Your task to perform on an android device: turn off notifications in google photos Image 0: 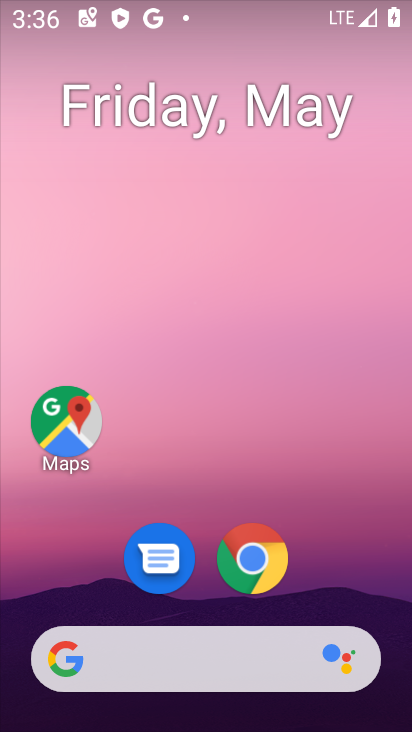
Step 0: press home button
Your task to perform on an android device: turn off notifications in google photos Image 1: 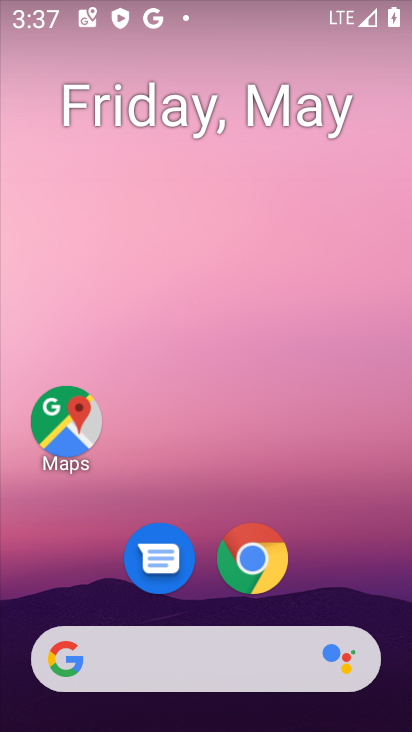
Step 1: drag from (238, 621) to (388, 76)
Your task to perform on an android device: turn off notifications in google photos Image 2: 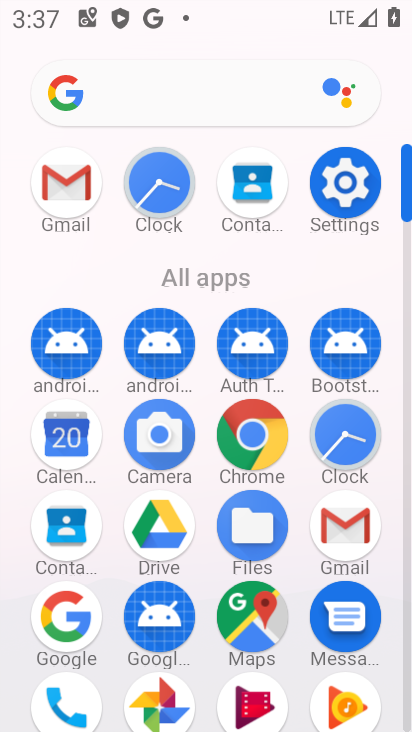
Step 2: drag from (192, 605) to (311, 254)
Your task to perform on an android device: turn off notifications in google photos Image 3: 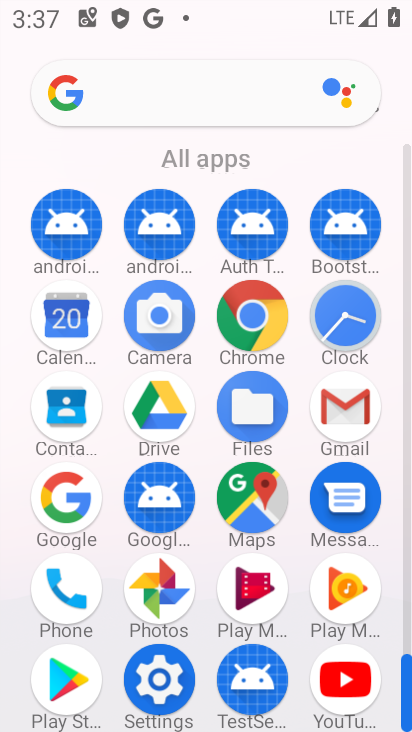
Step 3: click (163, 576)
Your task to perform on an android device: turn off notifications in google photos Image 4: 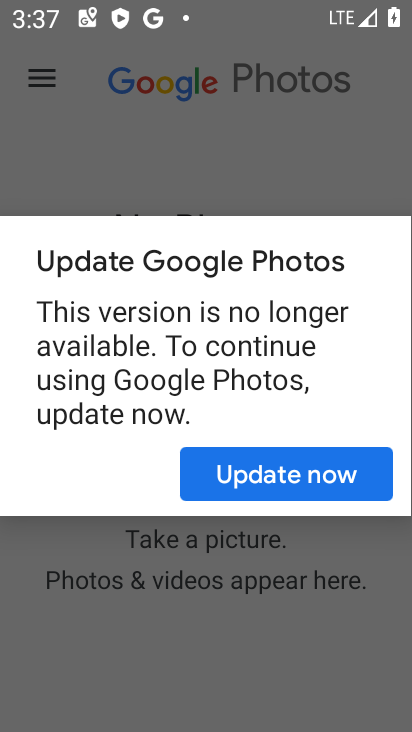
Step 4: click (332, 470)
Your task to perform on an android device: turn off notifications in google photos Image 5: 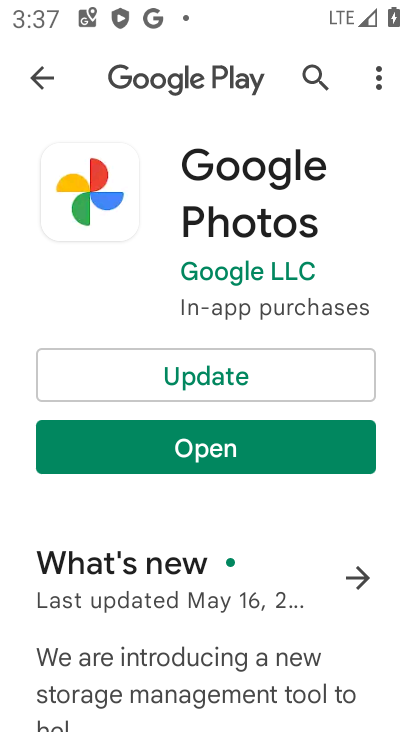
Step 5: click (249, 386)
Your task to perform on an android device: turn off notifications in google photos Image 6: 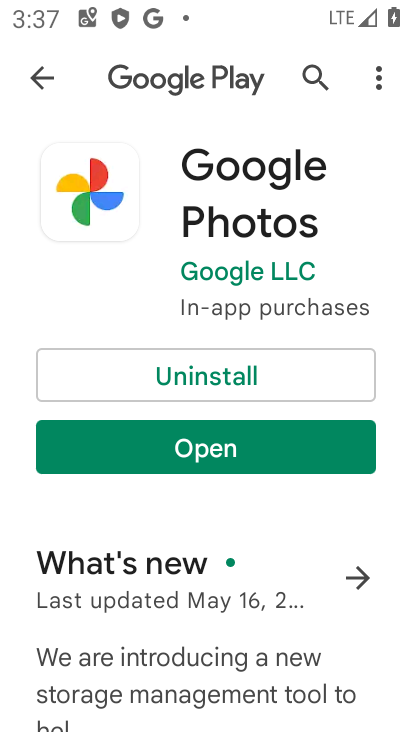
Step 6: click (234, 456)
Your task to perform on an android device: turn off notifications in google photos Image 7: 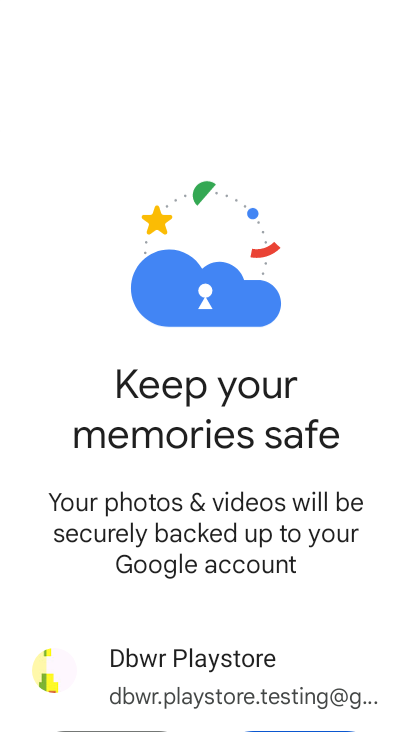
Step 7: drag from (237, 636) to (336, 162)
Your task to perform on an android device: turn off notifications in google photos Image 8: 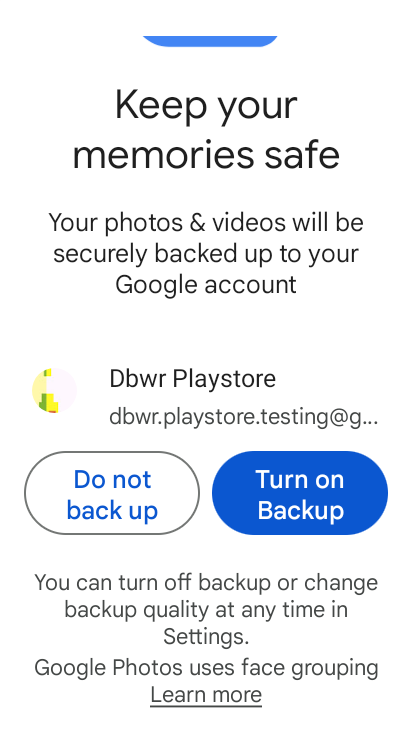
Step 8: click (296, 503)
Your task to perform on an android device: turn off notifications in google photos Image 9: 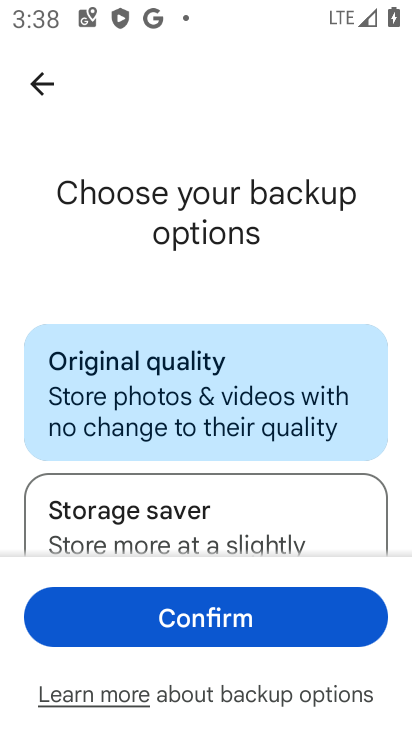
Step 9: click (232, 617)
Your task to perform on an android device: turn off notifications in google photos Image 10: 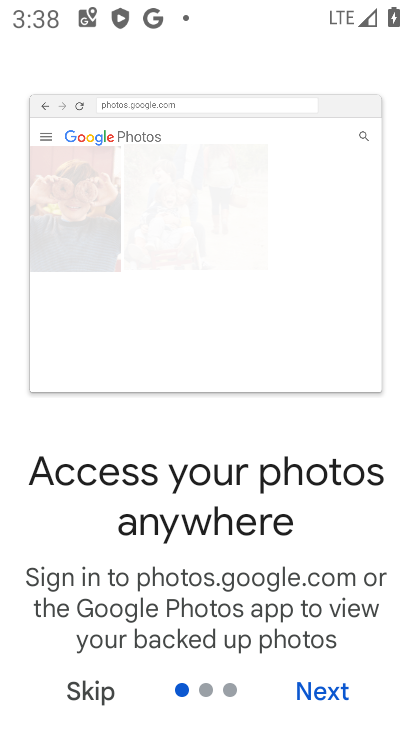
Step 10: click (304, 695)
Your task to perform on an android device: turn off notifications in google photos Image 11: 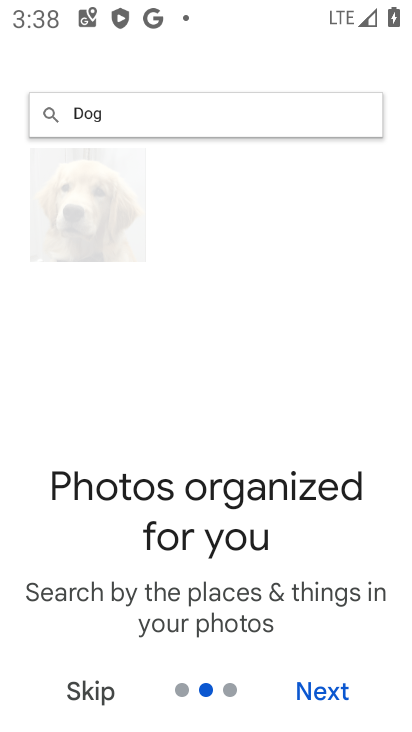
Step 11: click (304, 696)
Your task to perform on an android device: turn off notifications in google photos Image 12: 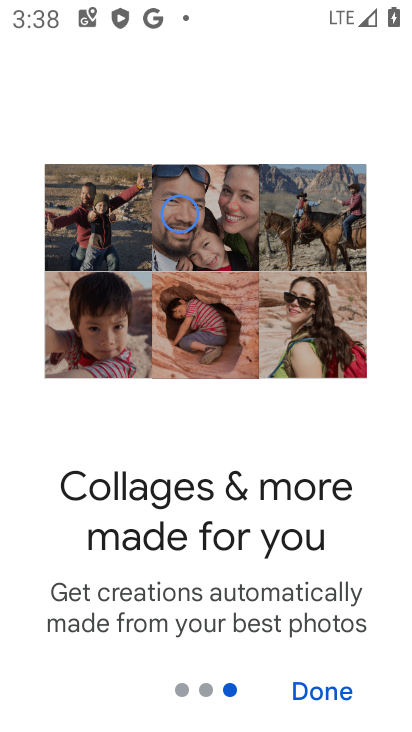
Step 12: click (304, 696)
Your task to perform on an android device: turn off notifications in google photos Image 13: 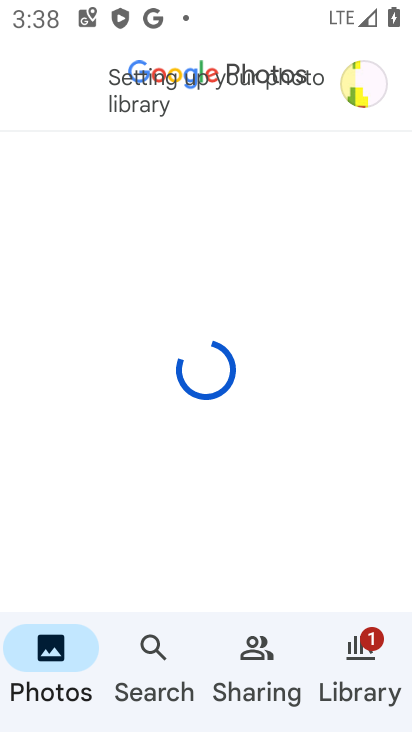
Step 13: click (368, 92)
Your task to perform on an android device: turn off notifications in google photos Image 14: 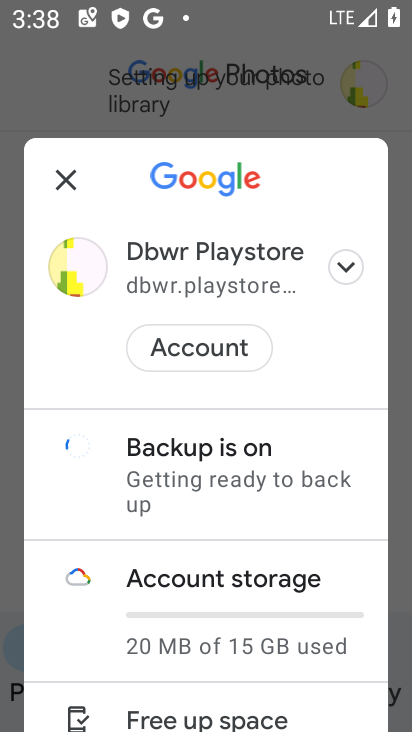
Step 14: drag from (156, 671) to (347, 187)
Your task to perform on an android device: turn off notifications in google photos Image 15: 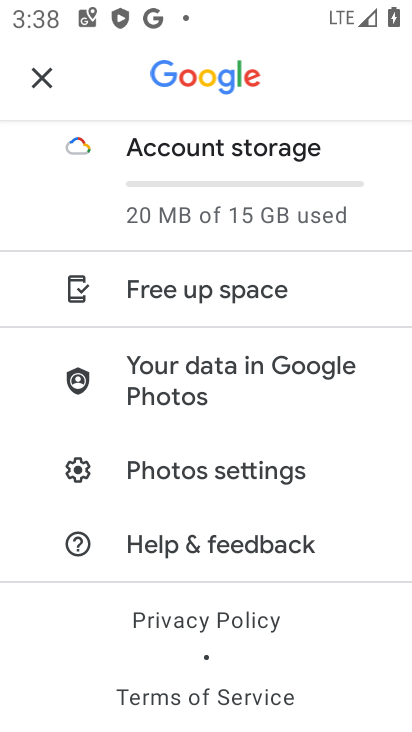
Step 15: click (234, 471)
Your task to perform on an android device: turn off notifications in google photos Image 16: 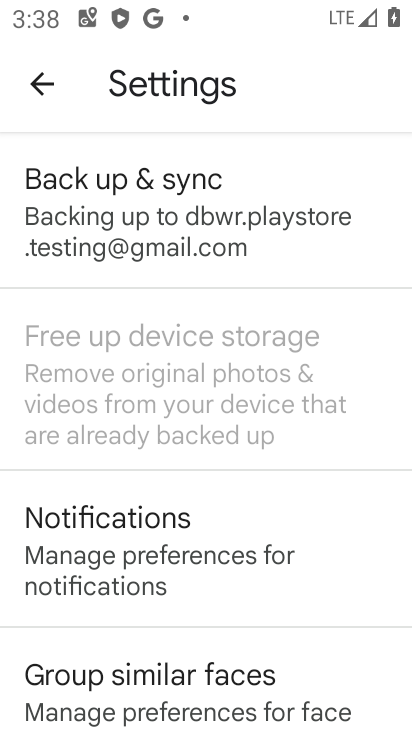
Step 16: click (159, 541)
Your task to perform on an android device: turn off notifications in google photos Image 17: 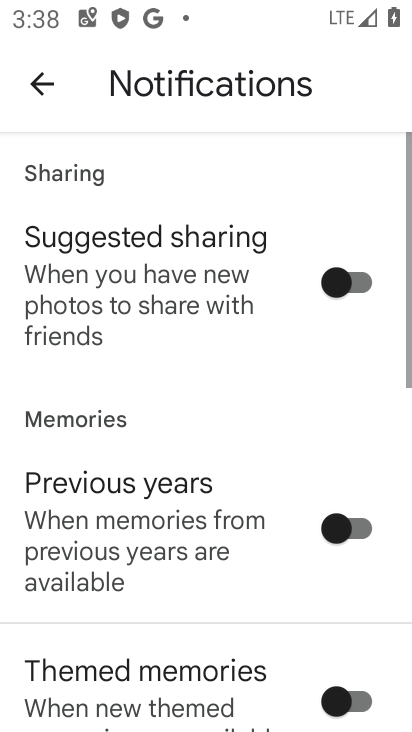
Step 17: drag from (147, 659) to (254, 103)
Your task to perform on an android device: turn off notifications in google photos Image 18: 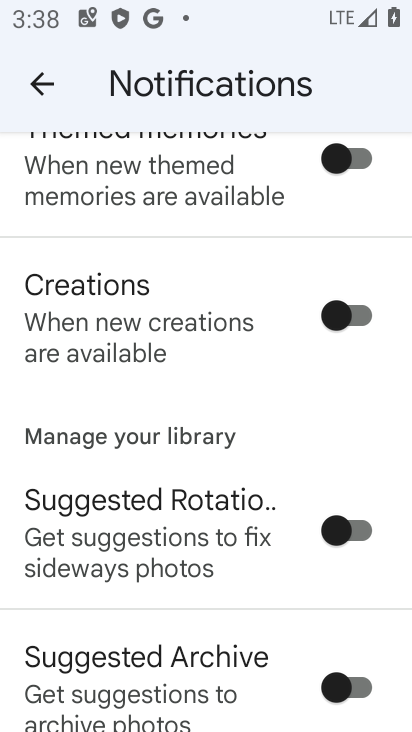
Step 18: drag from (172, 650) to (292, 205)
Your task to perform on an android device: turn off notifications in google photos Image 19: 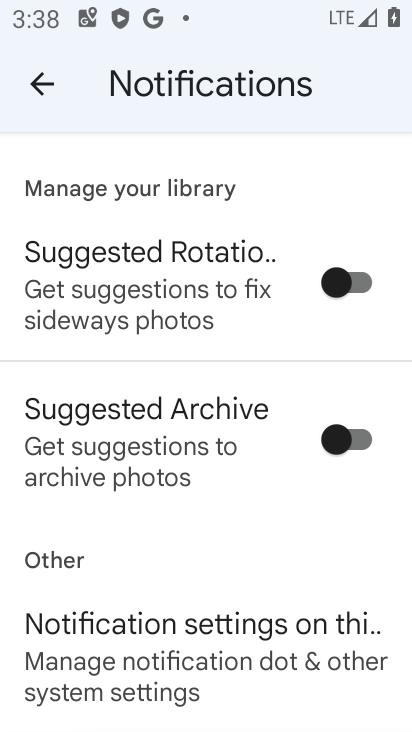
Step 19: click (183, 657)
Your task to perform on an android device: turn off notifications in google photos Image 20: 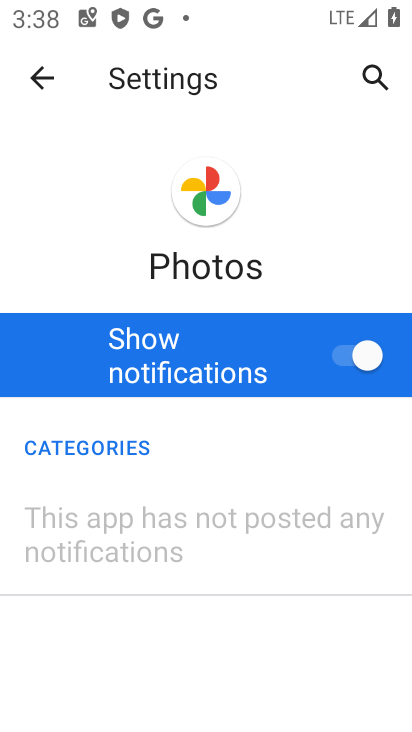
Step 20: click (345, 353)
Your task to perform on an android device: turn off notifications in google photos Image 21: 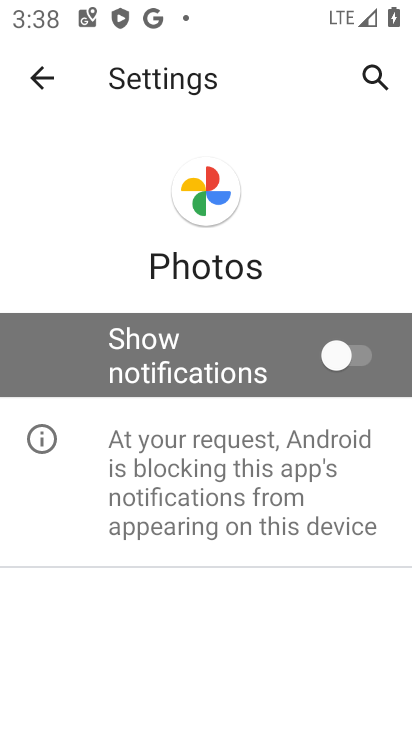
Step 21: task complete